Your task to perform on an android device: add a contact in the contacts app Image 0: 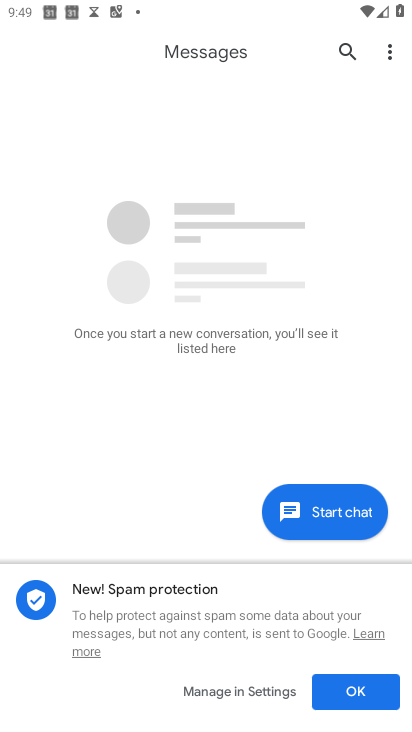
Step 0: press home button
Your task to perform on an android device: add a contact in the contacts app Image 1: 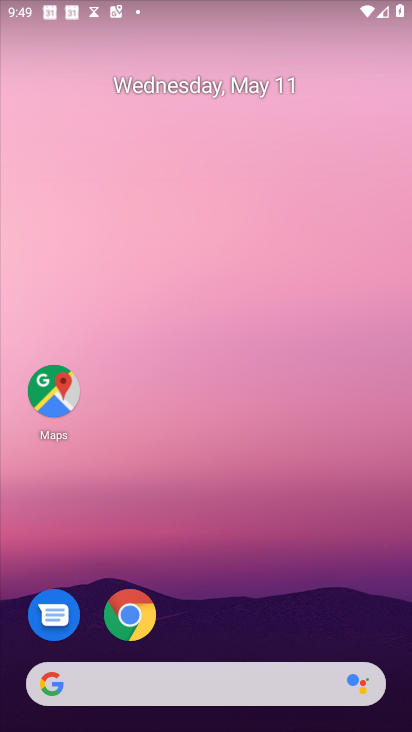
Step 1: drag from (225, 612) to (250, 218)
Your task to perform on an android device: add a contact in the contacts app Image 2: 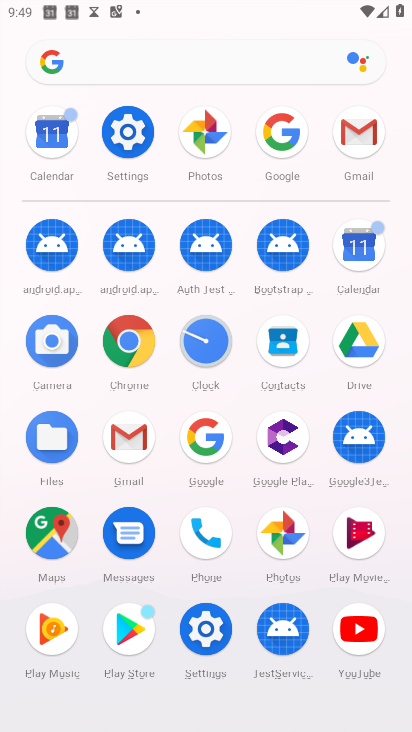
Step 2: click (204, 528)
Your task to perform on an android device: add a contact in the contacts app Image 3: 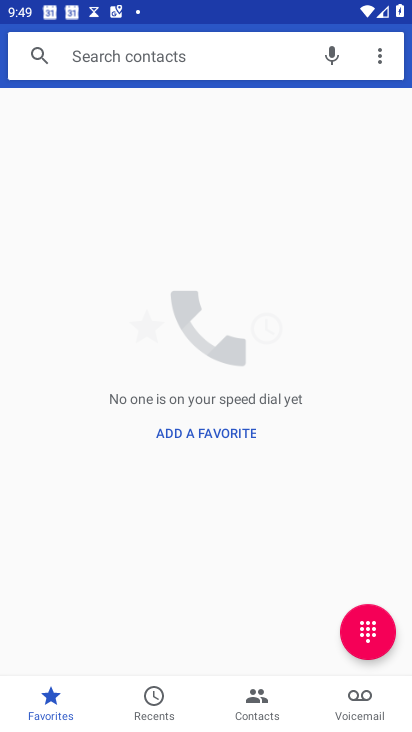
Step 3: press back button
Your task to perform on an android device: add a contact in the contacts app Image 4: 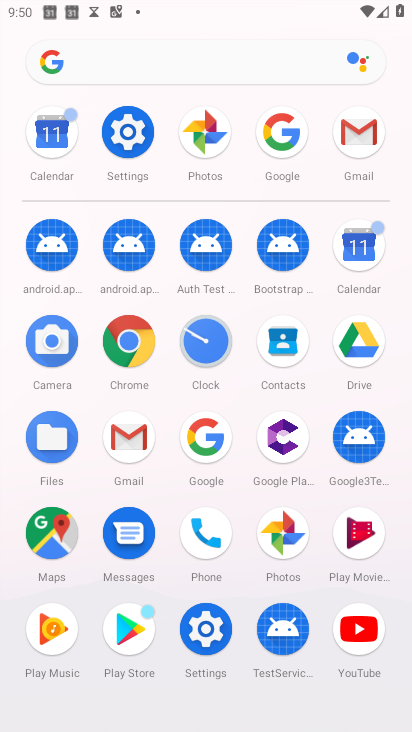
Step 4: click (295, 354)
Your task to perform on an android device: add a contact in the contacts app Image 5: 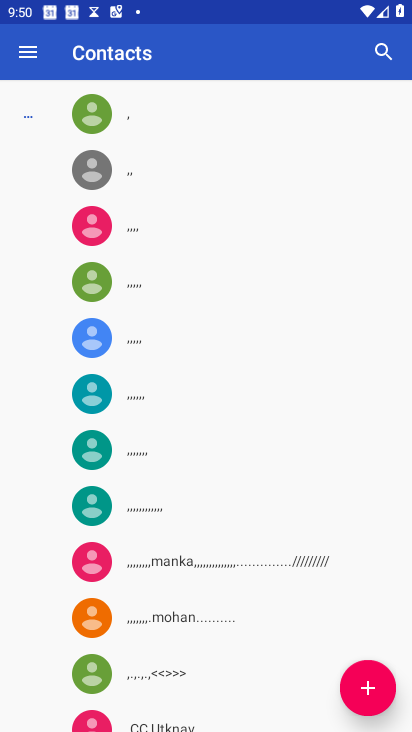
Step 5: click (360, 700)
Your task to perform on an android device: add a contact in the contacts app Image 6: 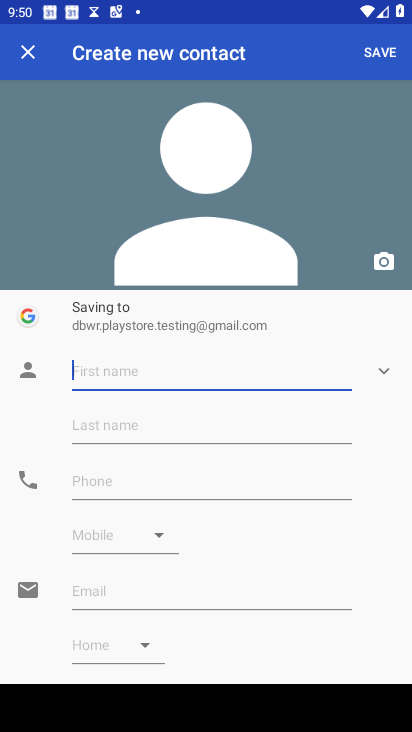
Step 6: type "hrhgfggjyyf"
Your task to perform on an android device: add a contact in the contacts app Image 7: 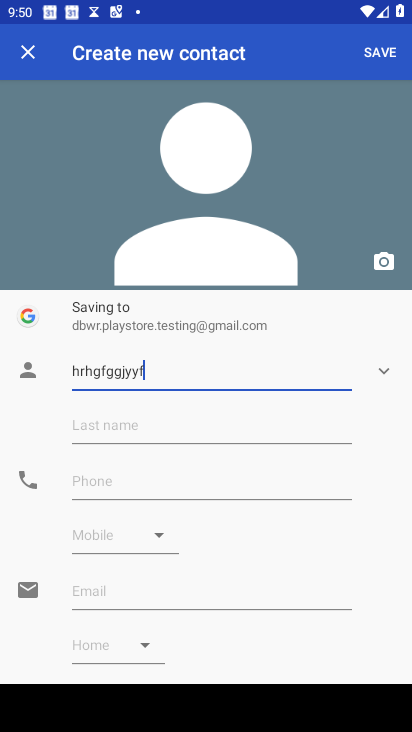
Step 7: type ""
Your task to perform on an android device: add a contact in the contacts app Image 8: 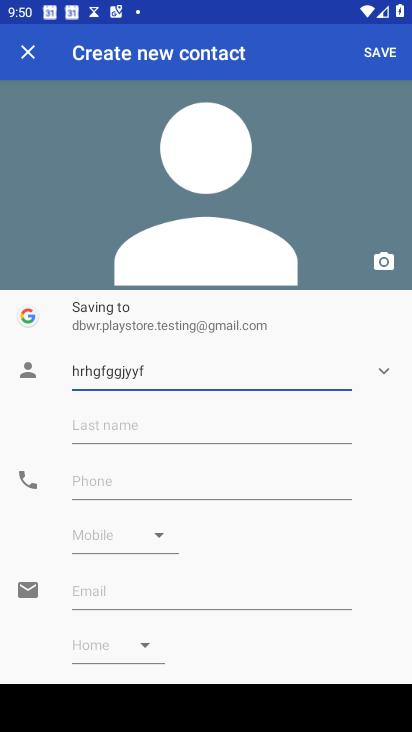
Step 8: click (380, 58)
Your task to perform on an android device: add a contact in the contacts app Image 9: 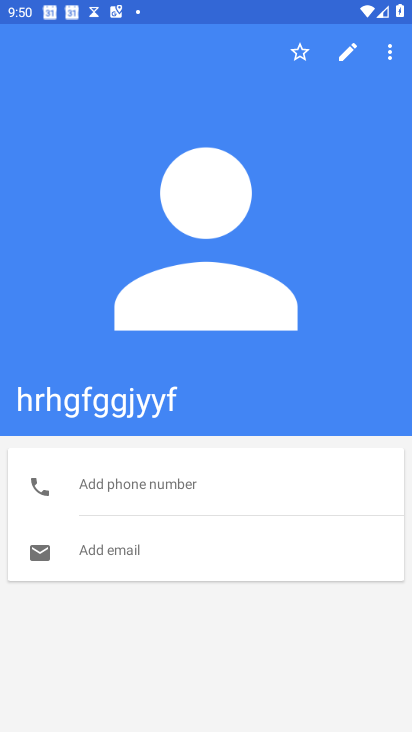
Step 9: task complete